Your task to perform on an android device: turn off translation in the chrome app Image 0: 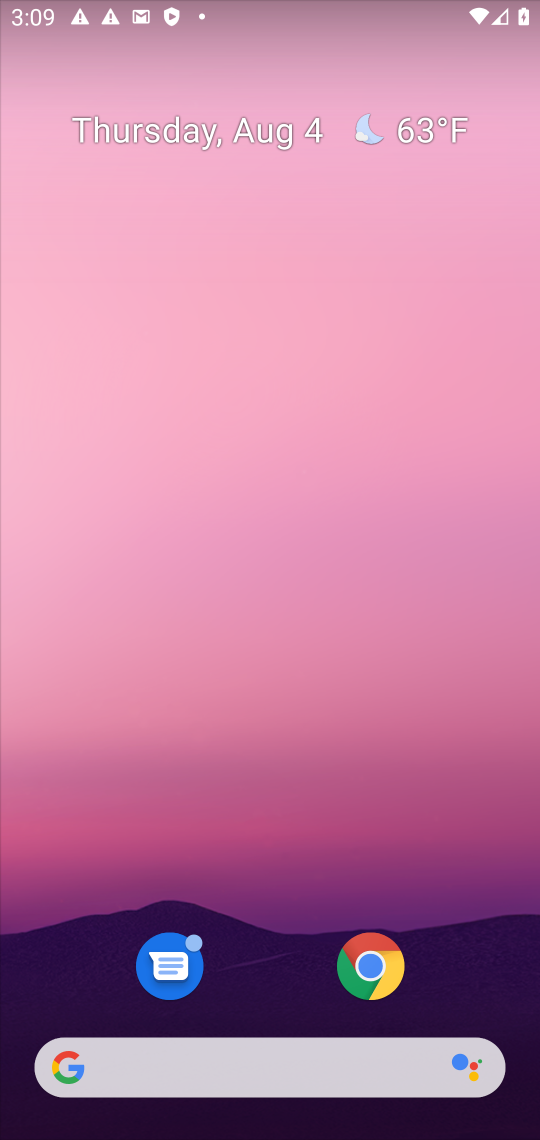
Step 0: click (373, 955)
Your task to perform on an android device: turn off translation in the chrome app Image 1: 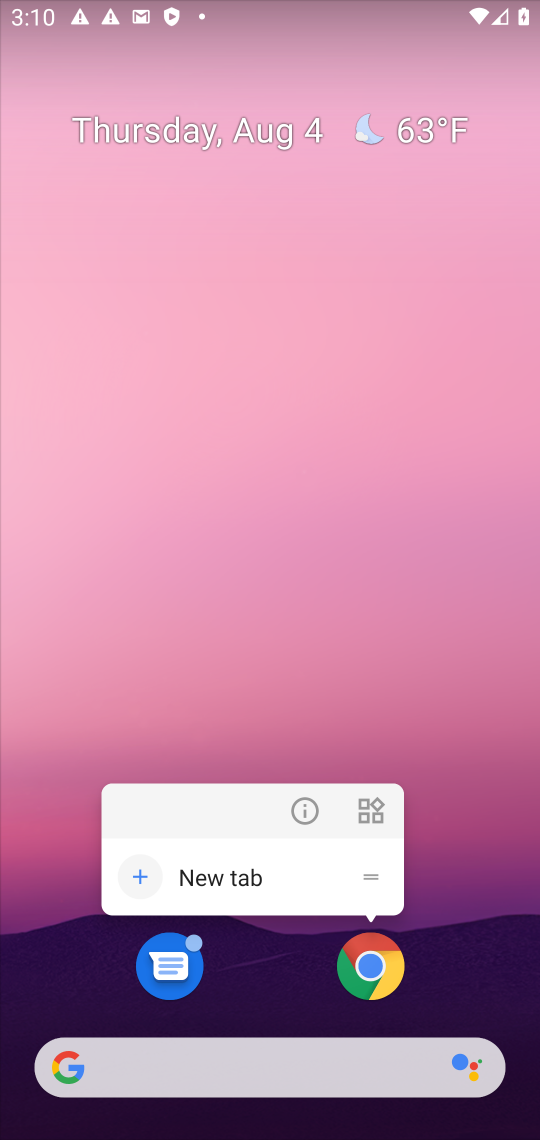
Step 1: click (343, 987)
Your task to perform on an android device: turn off translation in the chrome app Image 2: 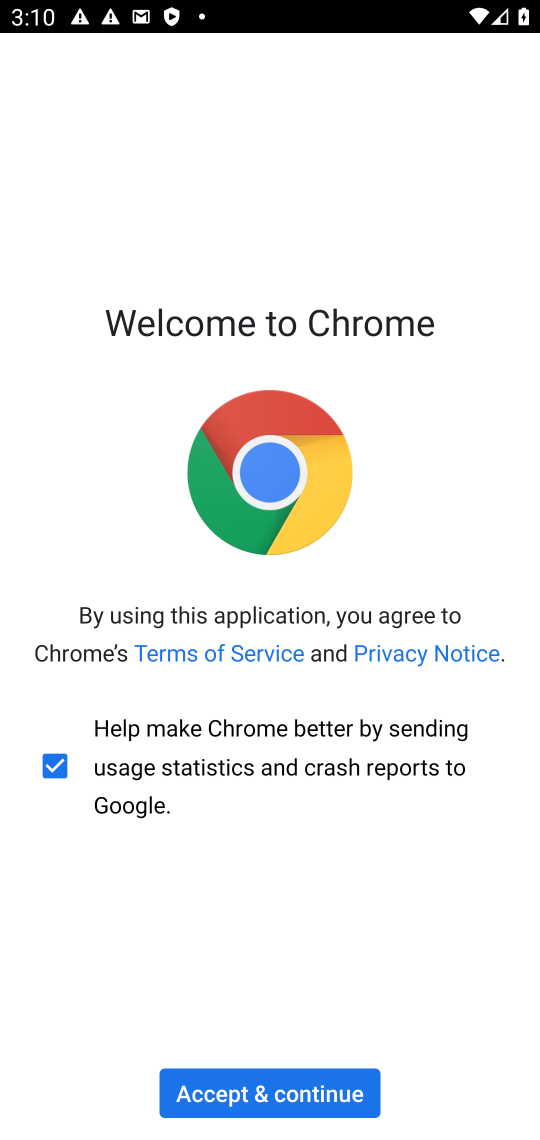
Step 2: click (271, 1080)
Your task to perform on an android device: turn off translation in the chrome app Image 3: 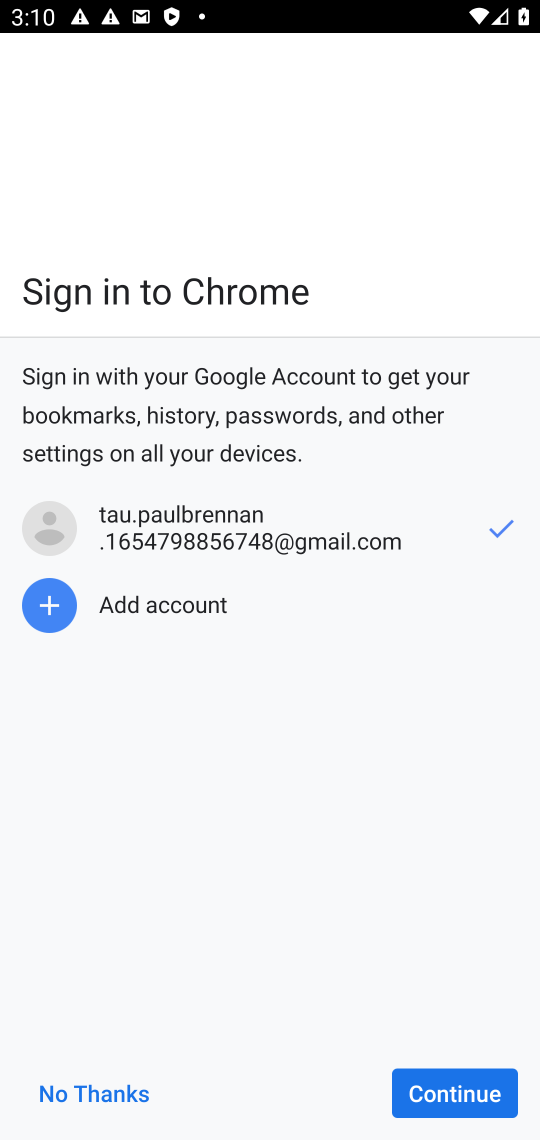
Step 3: click (434, 1085)
Your task to perform on an android device: turn off translation in the chrome app Image 4: 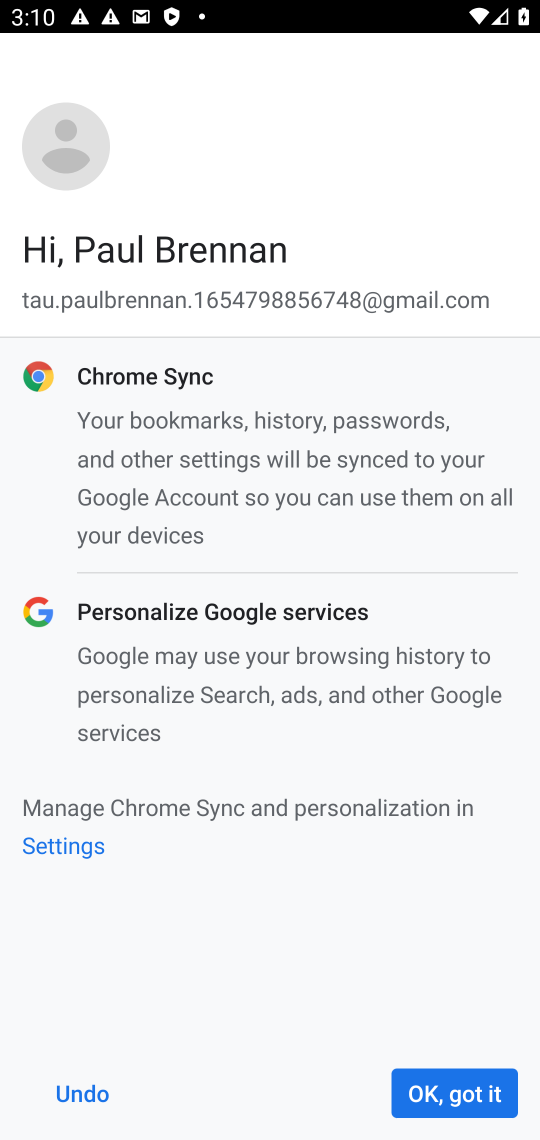
Step 4: click (434, 1085)
Your task to perform on an android device: turn off translation in the chrome app Image 5: 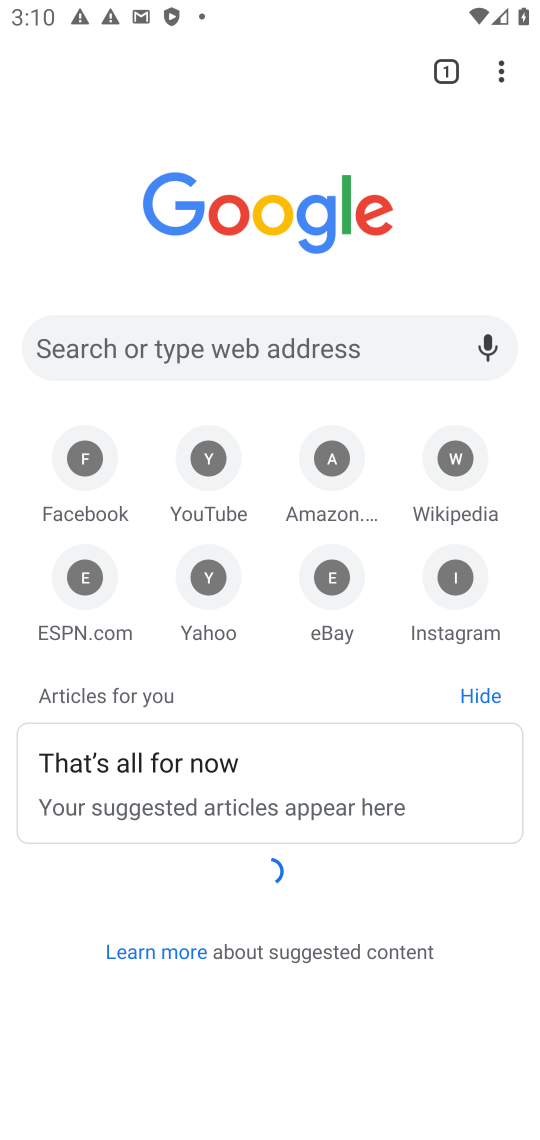
Step 5: click (502, 71)
Your task to perform on an android device: turn off translation in the chrome app Image 6: 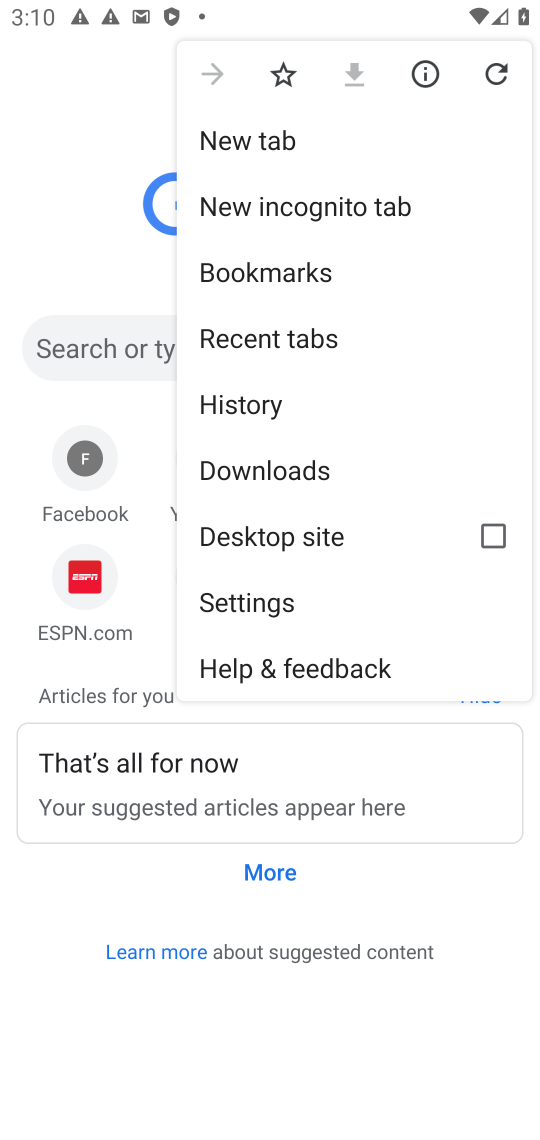
Step 6: click (231, 615)
Your task to perform on an android device: turn off translation in the chrome app Image 7: 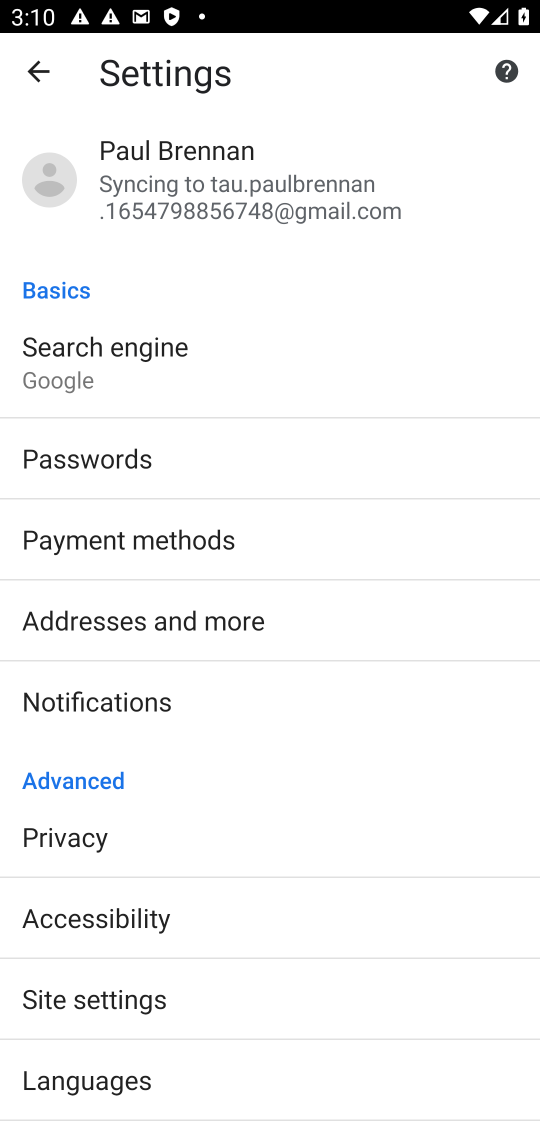
Step 7: drag from (310, 1064) to (242, 511)
Your task to perform on an android device: turn off translation in the chrome app Image 8: 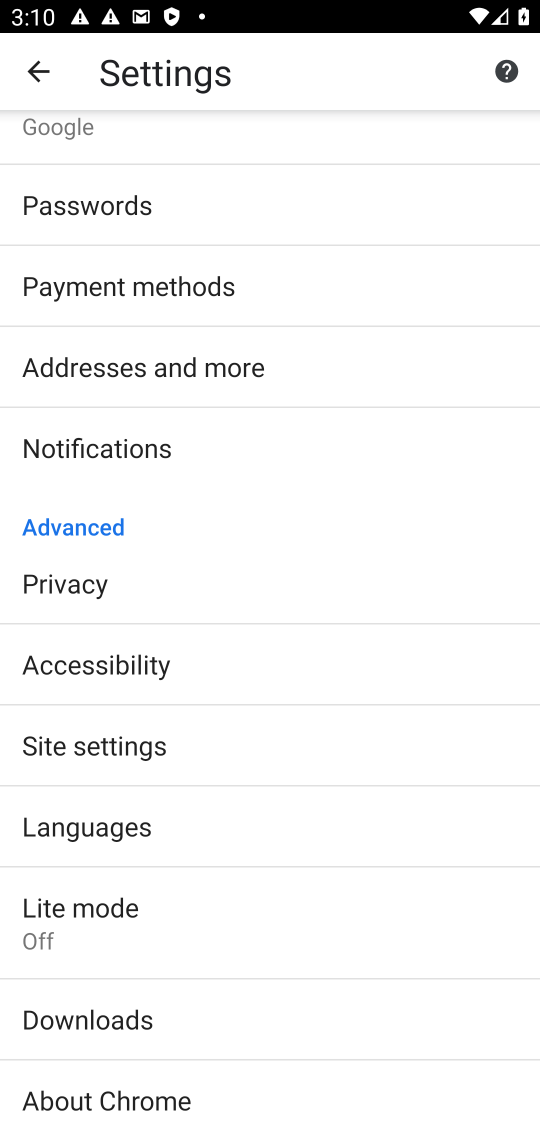
Step 8: click (89, 830)
Your task to perform on an android device: turn off translation in the chrome app Image 9: 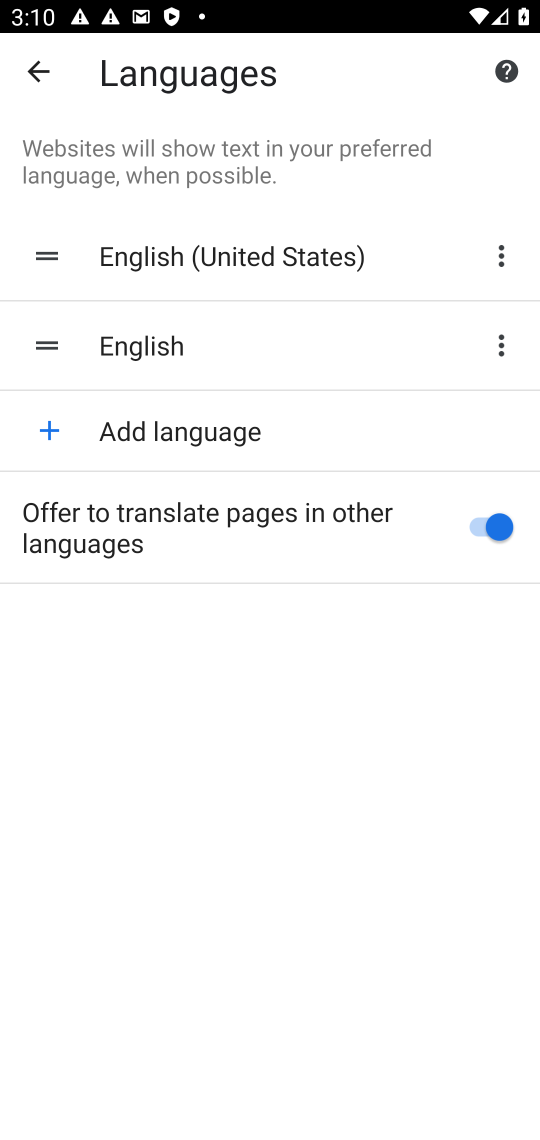
Step 9: click (513, 533)
Your task to perform on an android device: turn off translation in the chrome app Image 10: 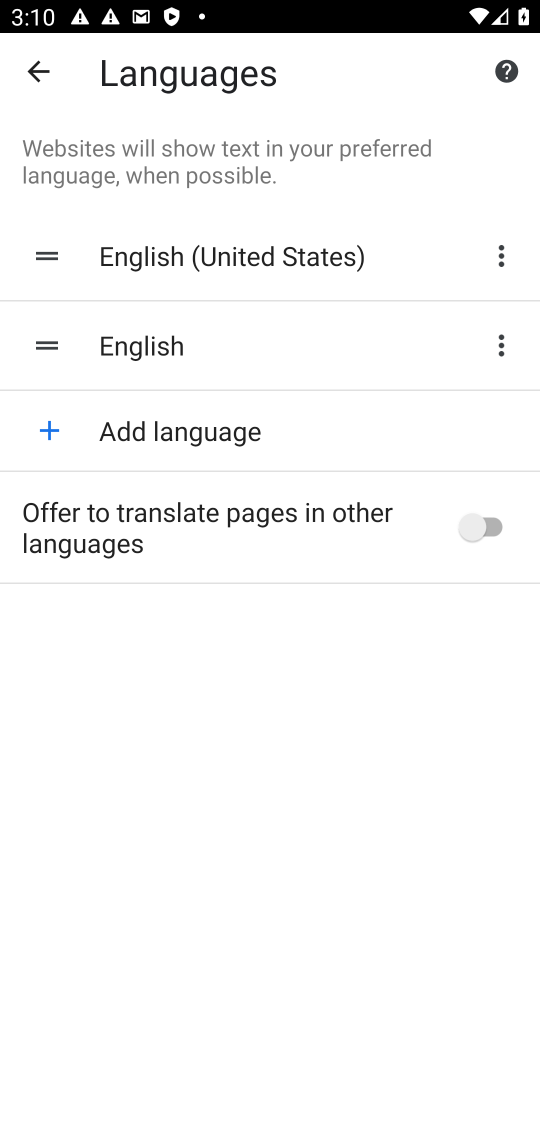
Step 10: task complete